Your task to perform on an android device: Open Youtube and go to "Your channel" Image 0: 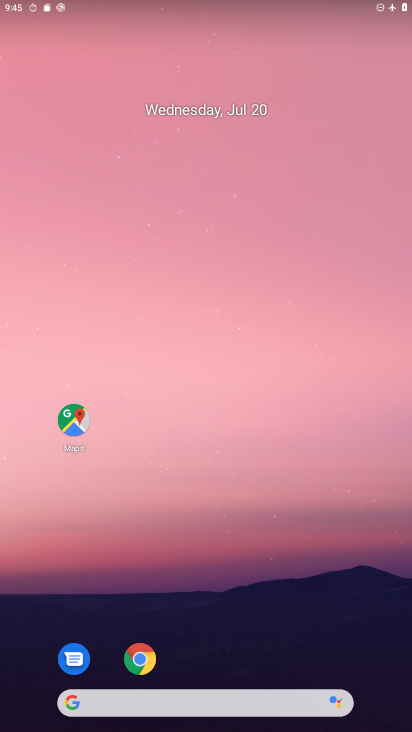
Step 0: drag from (288, 644) to (76, 7)
Your task to perform on an android device: Open Youtube and go to "Your channel" Image 1: 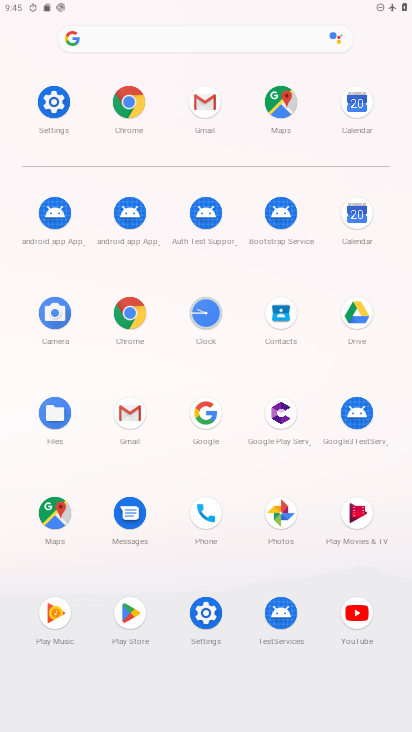
Step 1: click (352, 594)
Your task to perform on an android device: Open Youtube and go to "Your channel" Image 2: 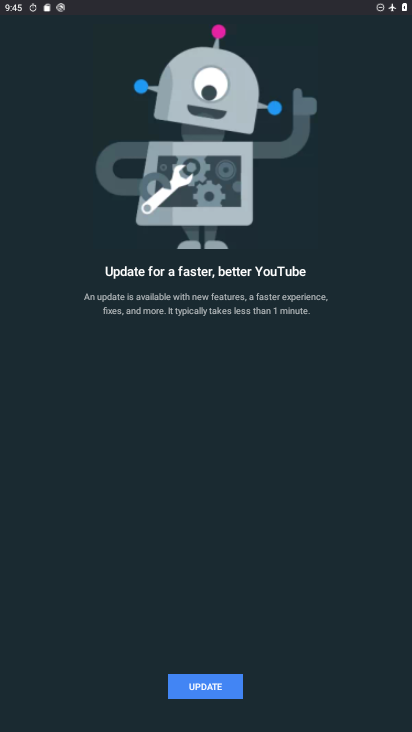
Step 2: task complete